Your task to perform on an android device: turn off javascript in the chrome app Image 0: 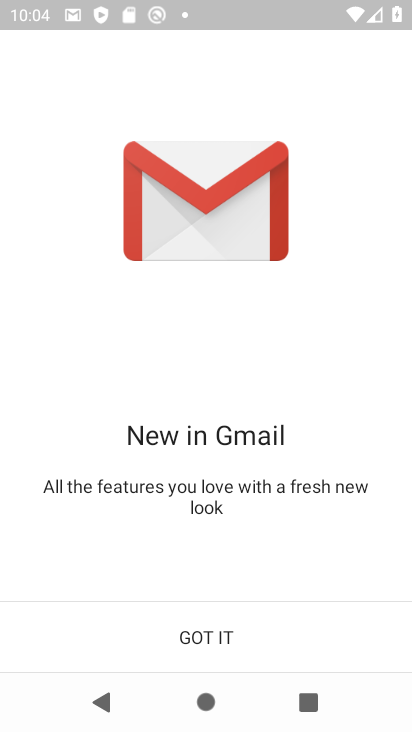
Step 0: press home button
Your task to perform on an android device: turn off javascript in the chrome app Image 1: 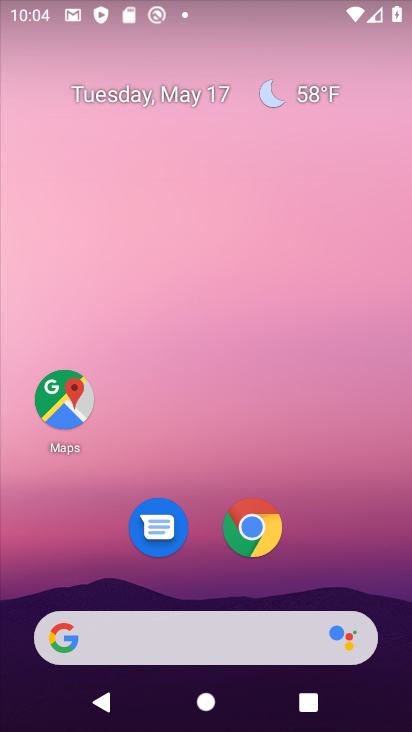
Step 1: click (254, 530)
Your task to perform on an android device: turn off javascript in the chrome app Image 2: 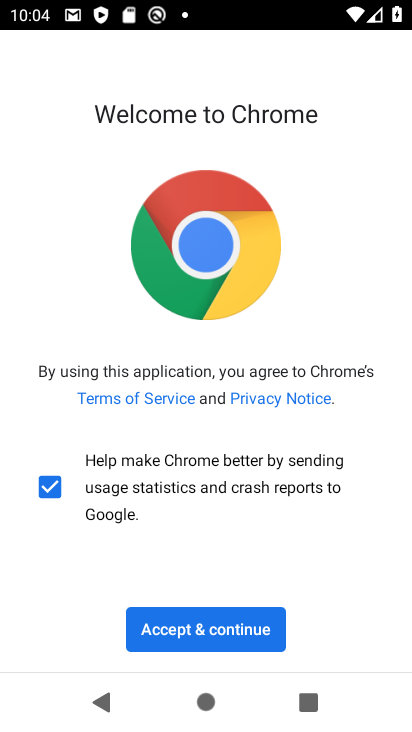
Step 2: click (197, 645)
Your task to perform on an android device: turn off javascript in the chrome app Image 3: 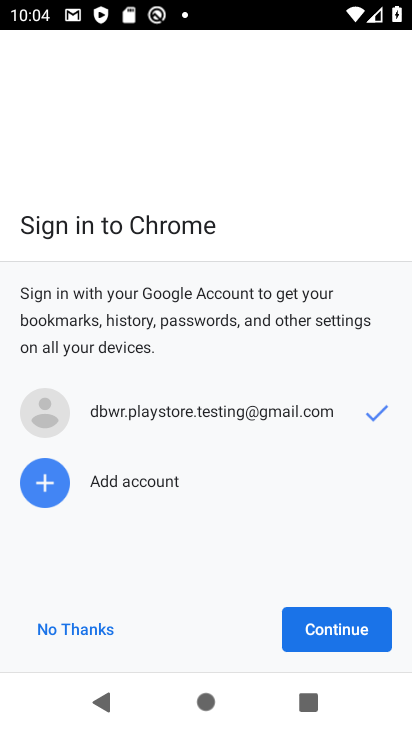
Step 3: click (98, 625)
Your task to perform on an android device: turn off javascript in the chrome app Image 4: 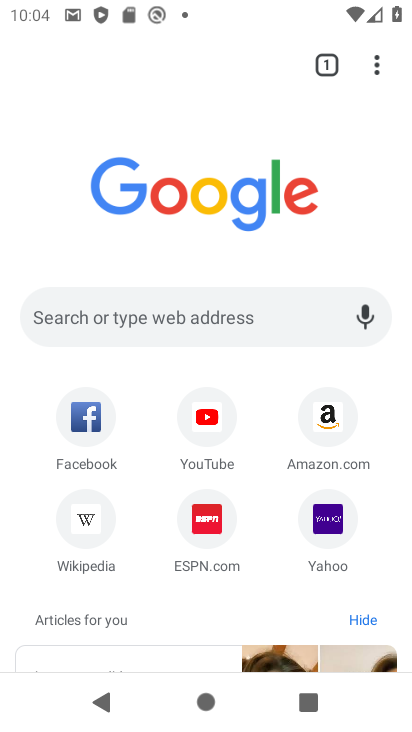
Step 4: click (379, 69)
Your task to perform on an android device: turn off javascript in the chrome app Image 5: 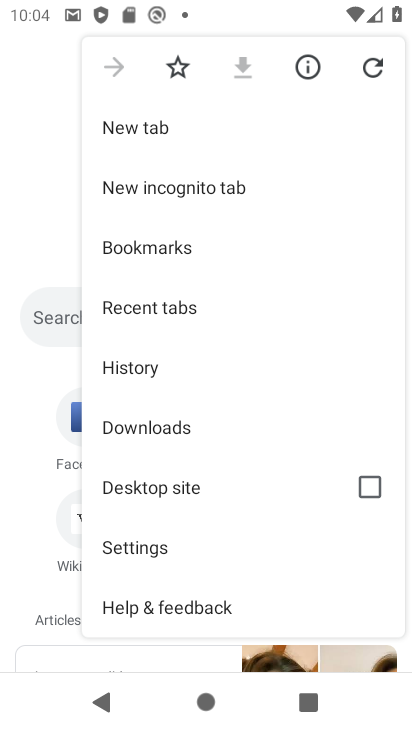
Step 5: click (117, 548)
Your task to perform on an android device: turn off javascript in the chrome app Image 6: 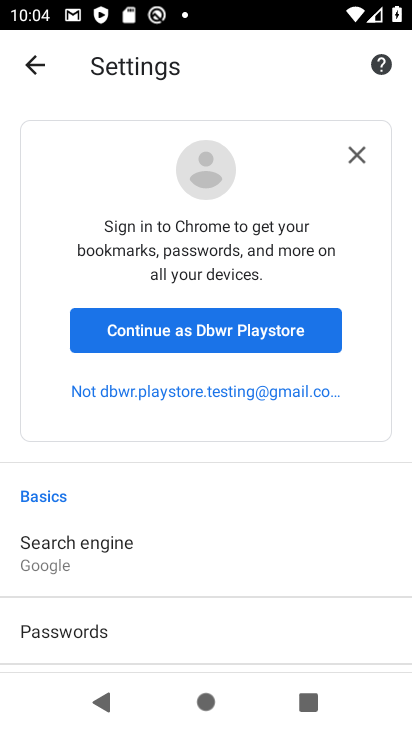
Step 6: drag from (117, 548) to (189, 2)
Your task to perform on an android device: turn off javascript in the chrome app Image 7: 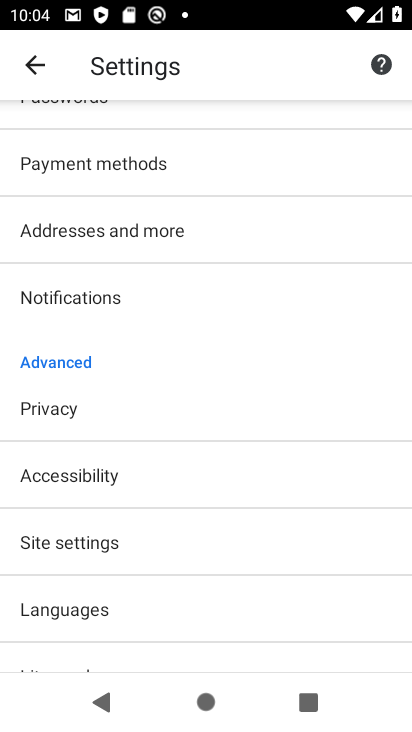
Step 7: click (96, 539)
Your task to perform on an android device: turn off javascript in the chrome app Image 8: 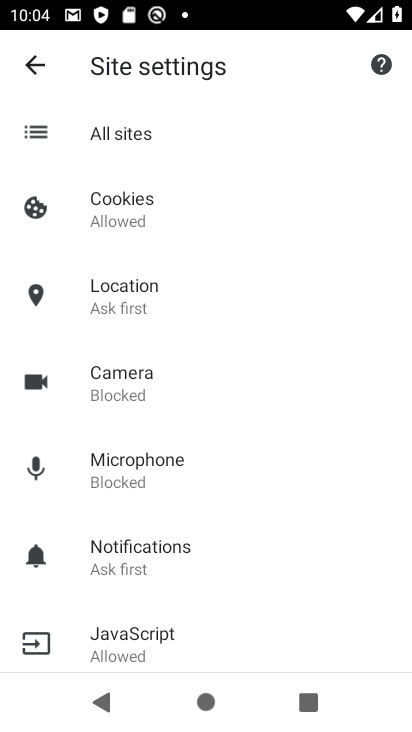
Step 8: click (131, 625)
Your task to perform on an android device: turn off javascript in the chrome app Image 9: 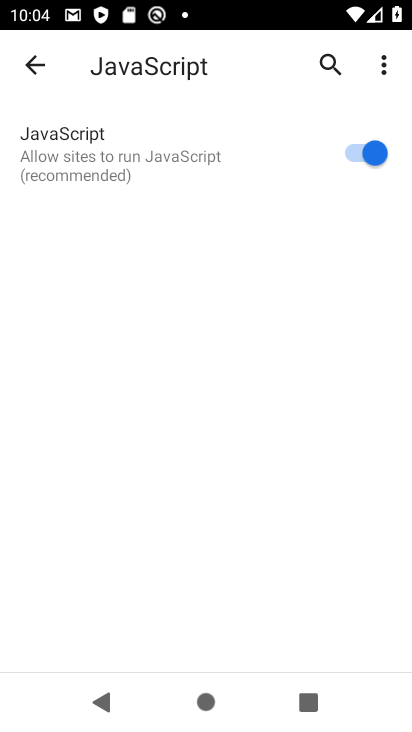
Step 9: click (377, 155)
Your task to perform on an android device: turn off javascript in the chrome app Image 10: 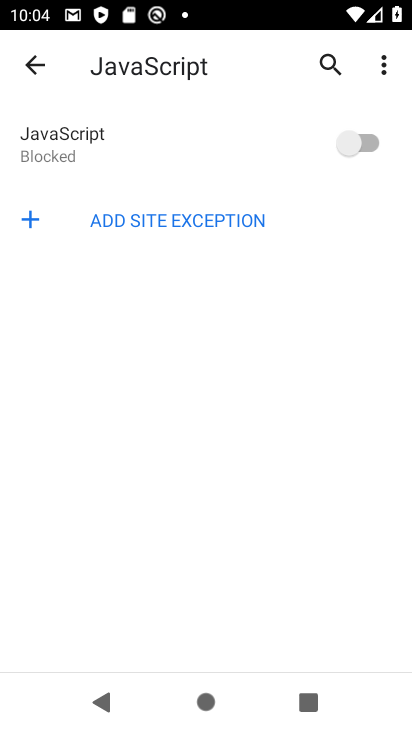
Step 10: task complete